Your task to perform on an android device: toggle priority inbox in the gmail app Image 0: 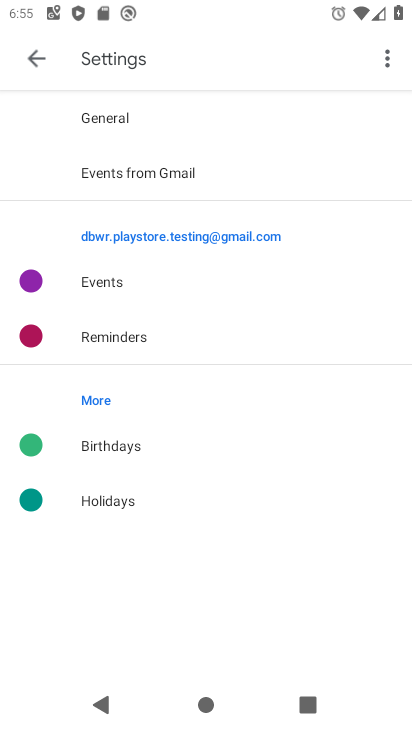
Step 0: press home button
Your task to perform on an android device: toggle priority inbox in the gmail app Image 1: 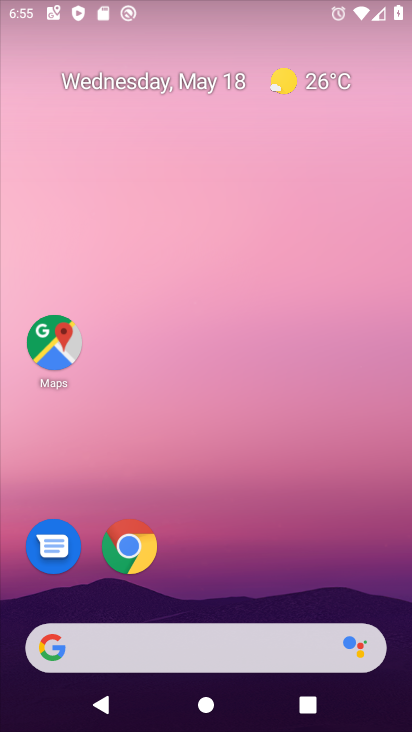
Step 1: drag from (391, 643) to (214, 1)
Your task to perform on an android device: toggle priority inbox in the gmail app Image 2: 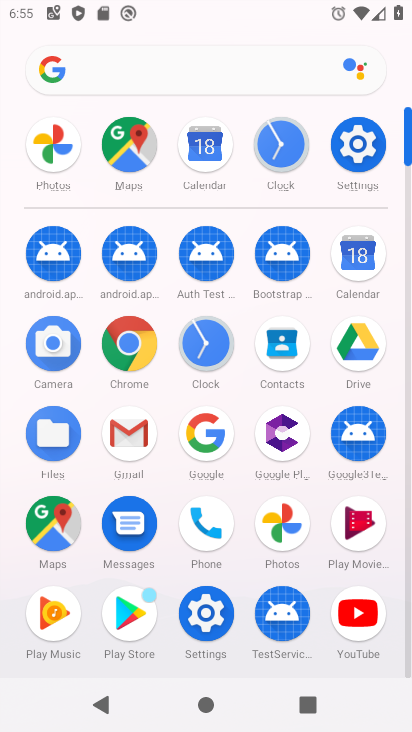
Step 2: click (146, 425)
Your task to perform on an android device: toggle priority inbox in the gmail app Image 3: 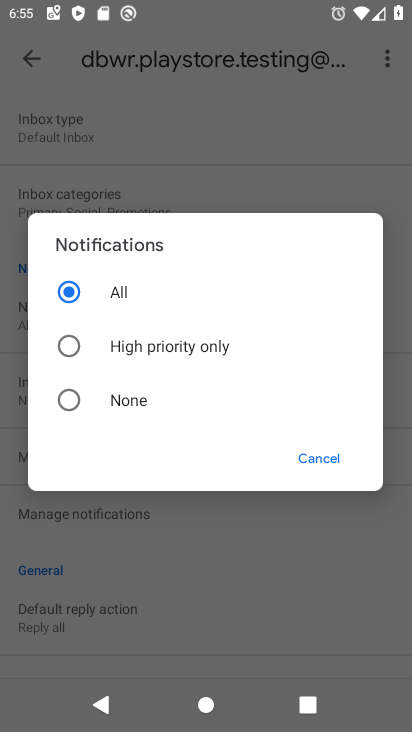
Step 3: click (322, 457)
Your task to perform on an android device: toggle priority inbox in the gmail app Image 4: 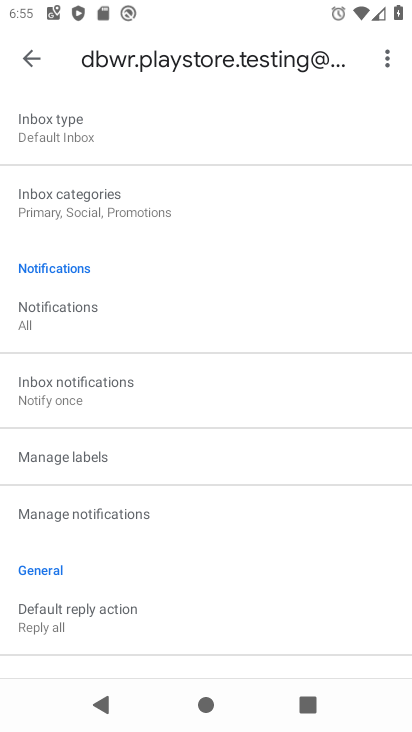
Step 4: click (94, 213)
Your task to perform on an android device: toggle priority inbox in the gmail app Image 5: 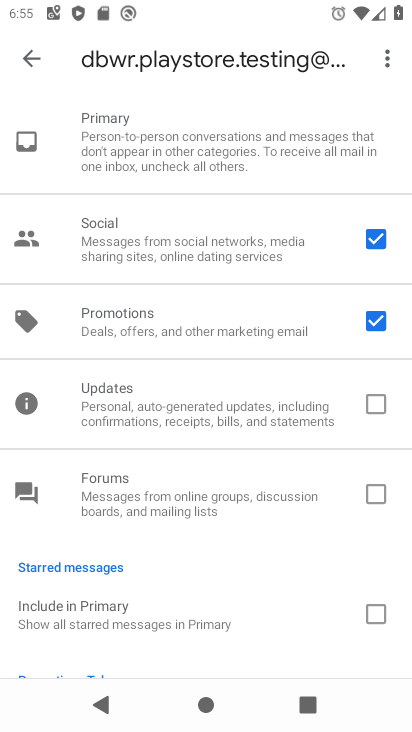
Step 5: press back button
Your task to perform on an android device: toggle priority inbox in the gmail app Image 6: 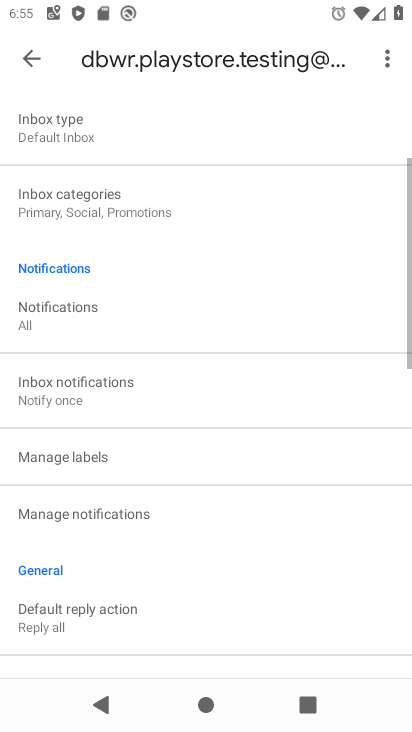
Step 6: click (97, 135)
Your task to perform on an android device: toggle priority inbox in the gmail app Image 7: 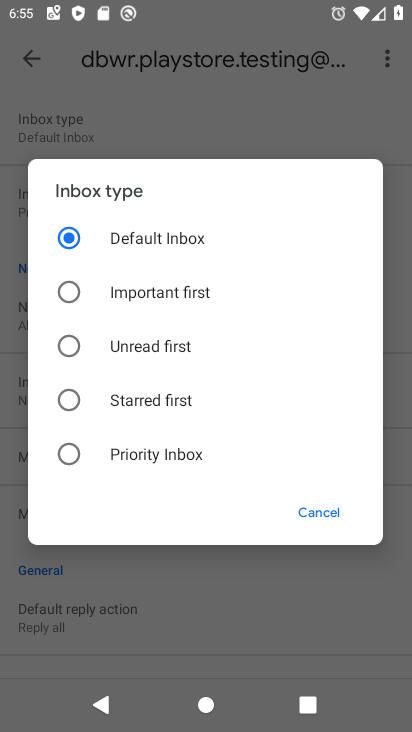
Step 7: click (158, 292)
Your task to perform on an android device: toggle priority inbox in the gmail app Image 8: 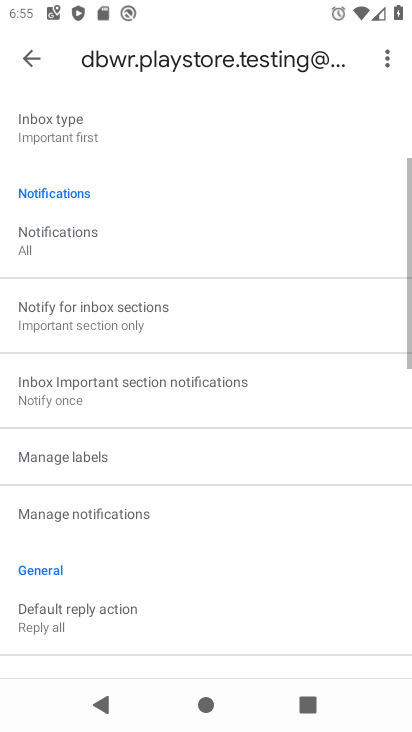
Step 8: task complete